Your task to perform on an android device: Open Yahoo.com Image 0: 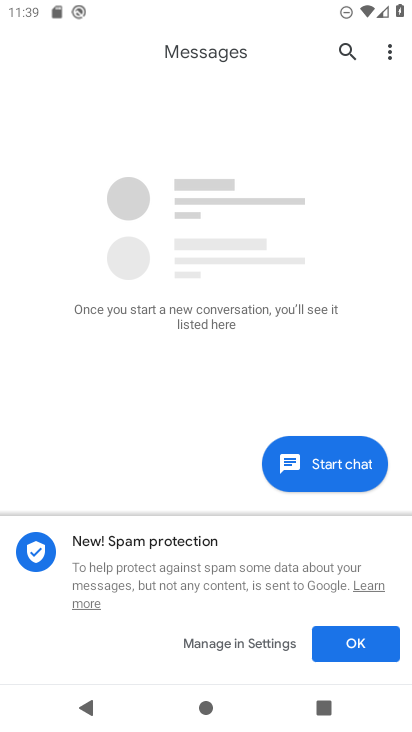
Step 0: press home button
Your task to perform on an android device: Open Yahoo.com Image 1: 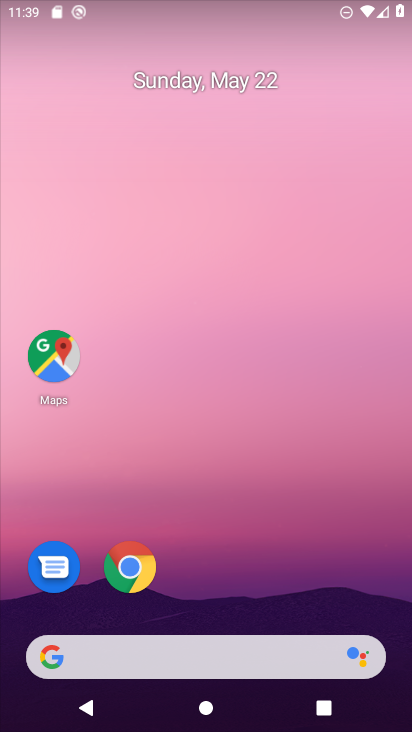
Step 1: click (134, 567)
Your task to perform on an android device: Open Yahoo.com Image 2: 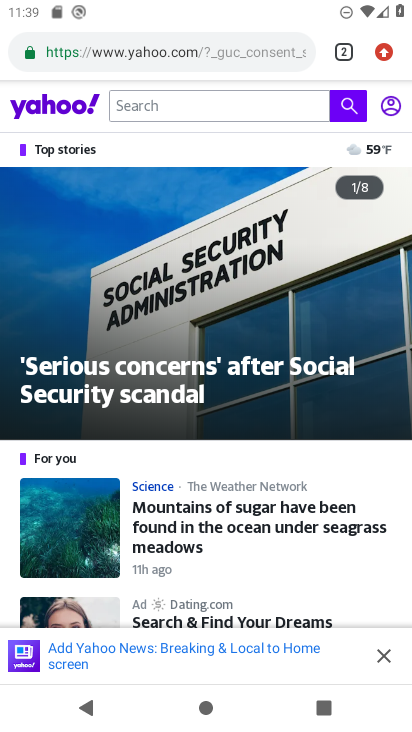
Step 2: task complete